Your task to perform on an android device: turn off priority inbox in the gmail app Image 0: 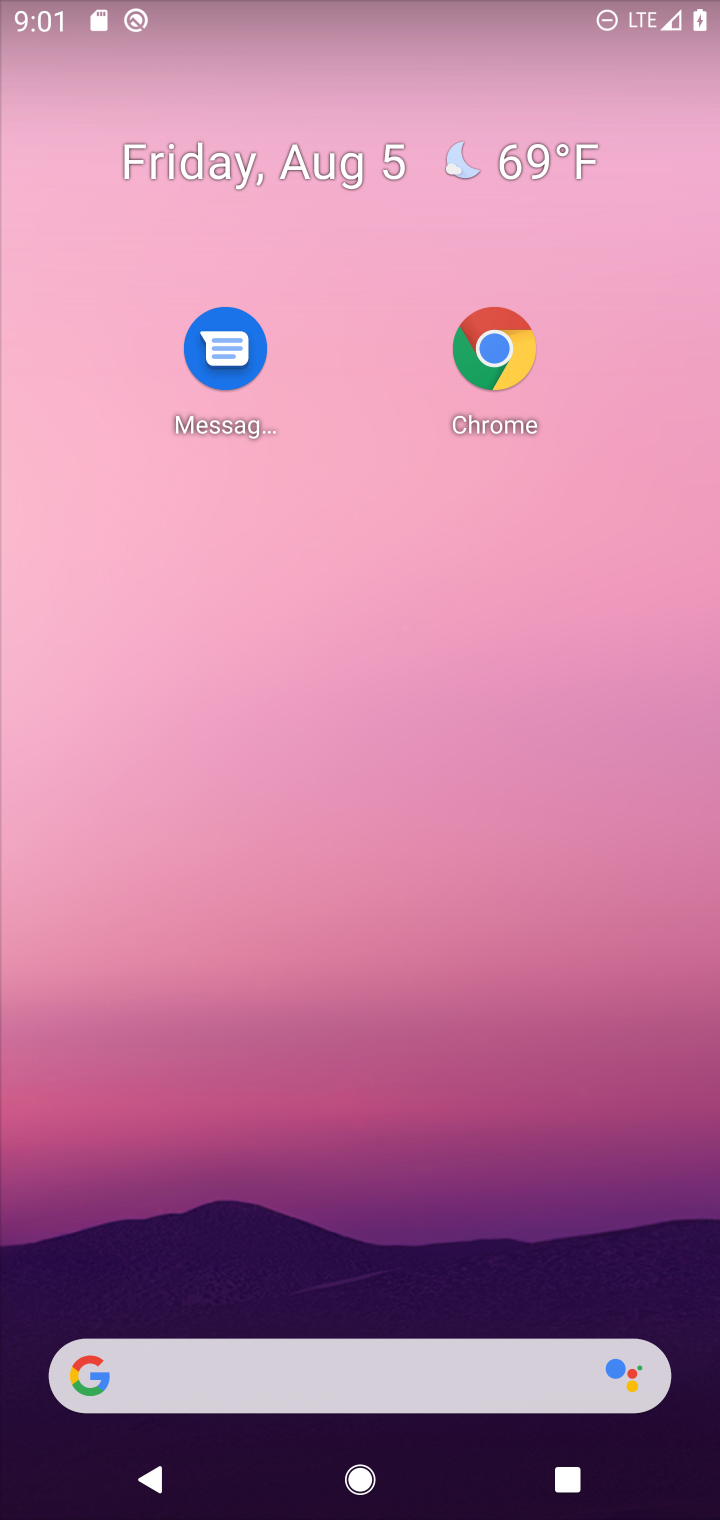
Step 0: drag from (501, 1204) to (352, 358)
Your task to perform on an android device: turn off priority inbox in the gmail app Image 1: 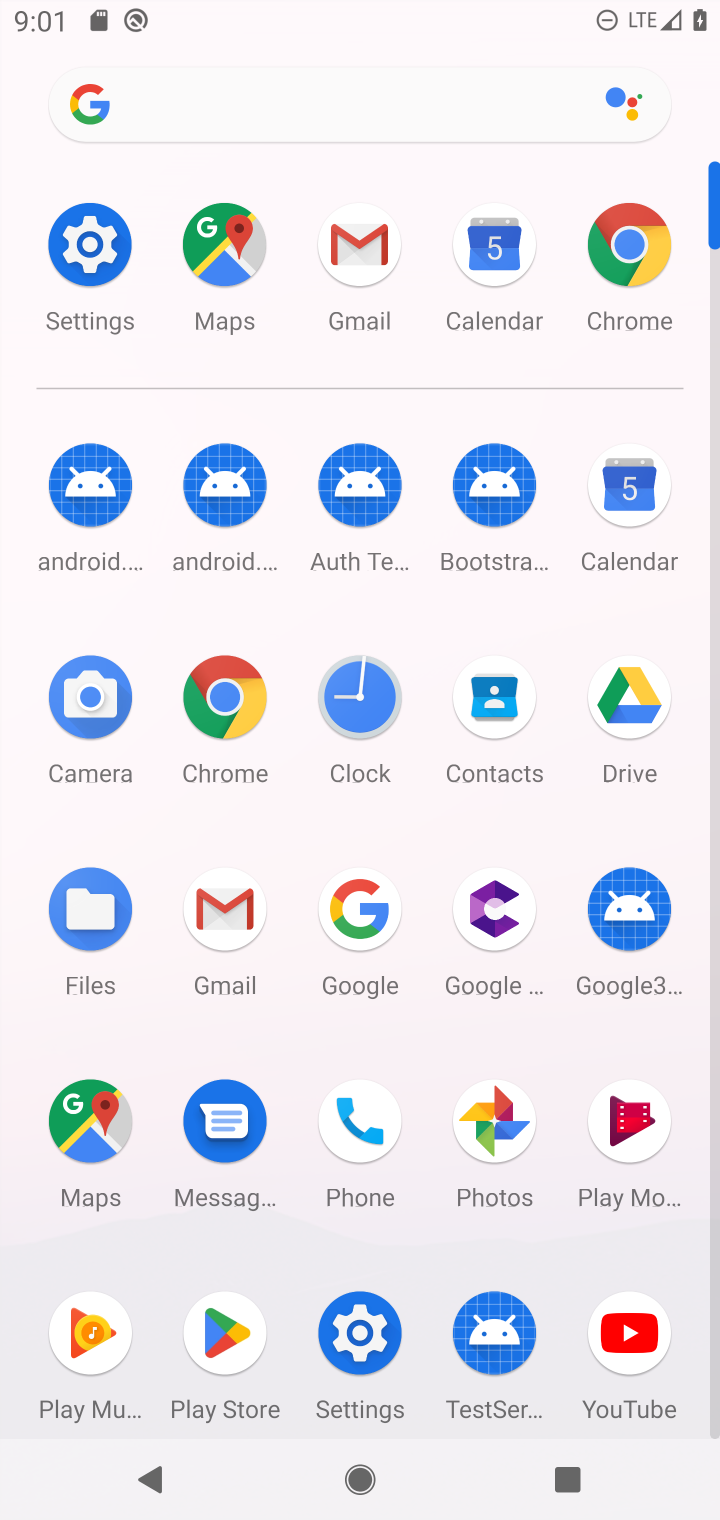
Step 1: click (331, 254)
Your task to perform on an android device: turn off priority inbox in the gmail app Image 2: 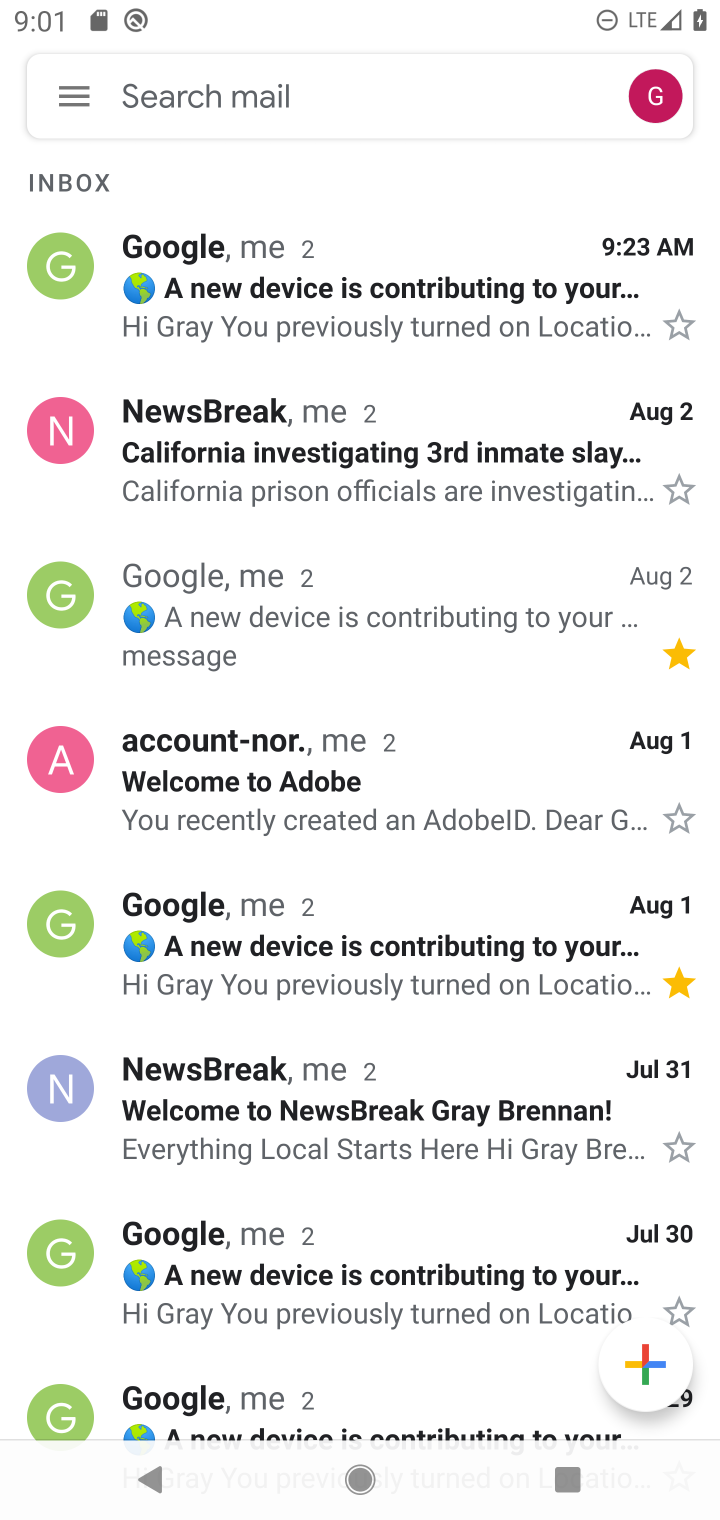
Step 2: click (54, 108)
Your task to perform on an android device: turn off priority inbox in the gmail app Image 3: 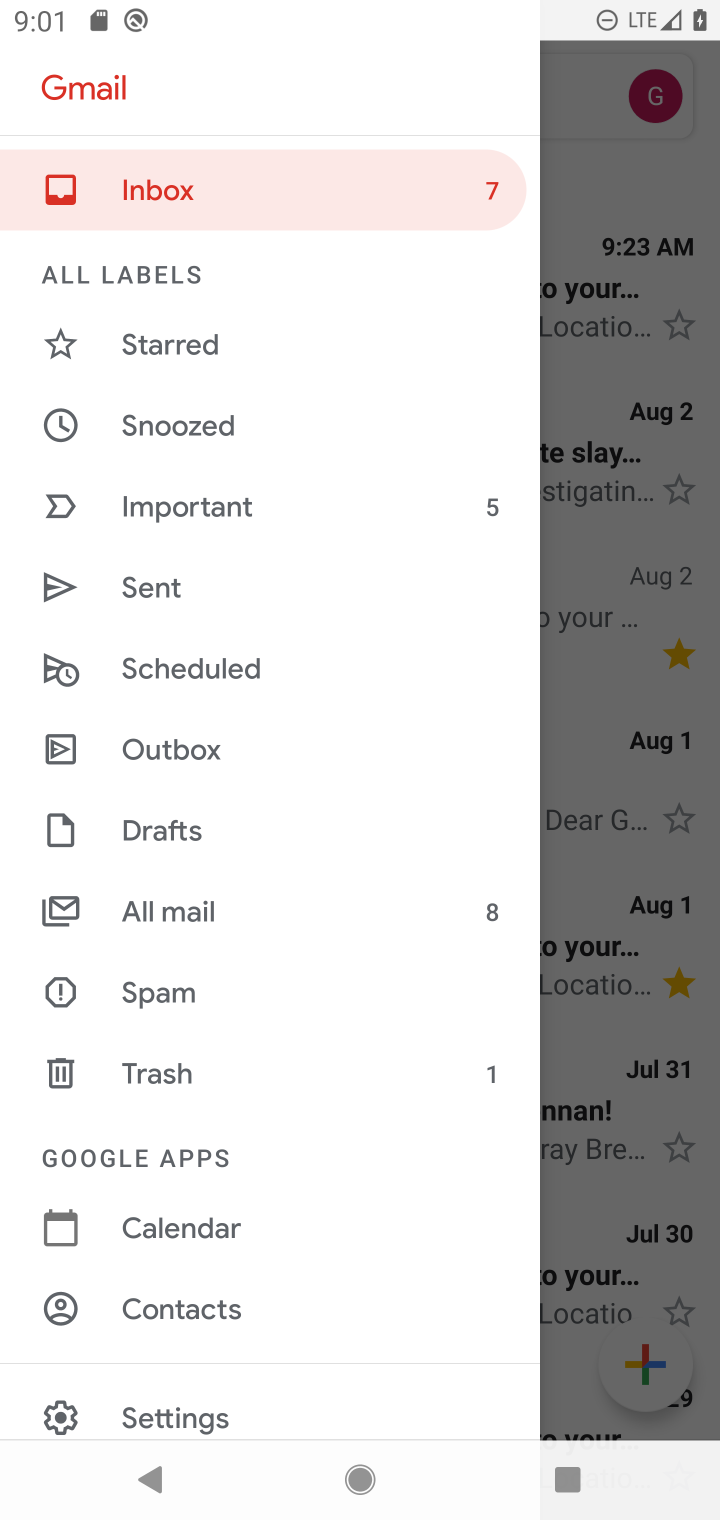
Step 3: click (171, 1416)
Your task to perform on an android device: turn off priority inbox in the gmail app Image 4: 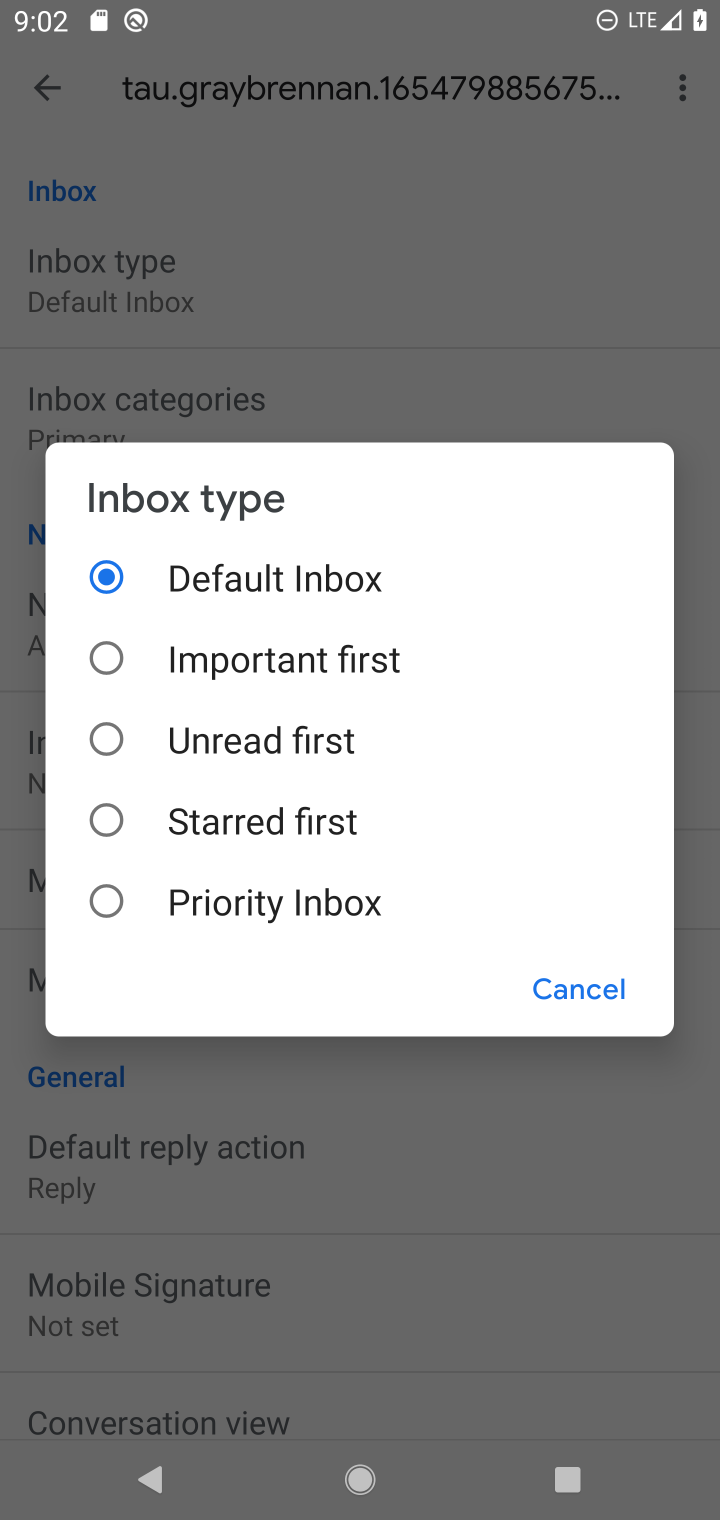
Step 4: task complete